Your task to perform on an android device: Add panasonic triple a to the cart on ebay, then select checkout. Image 0: 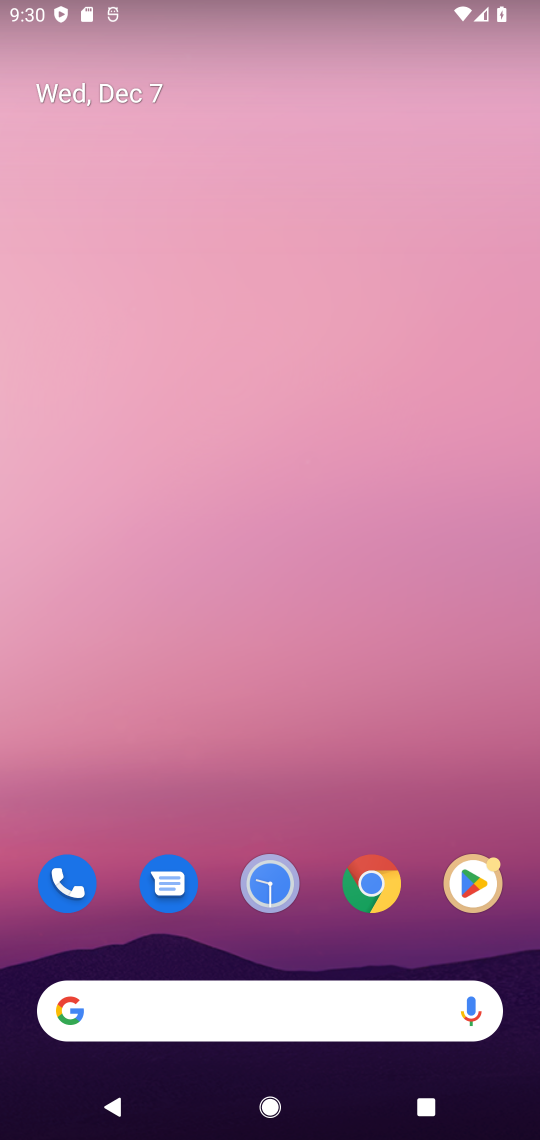
Step 0: drag from (194, 998) to (370, 309)
Your task to perform on an android device: Add panasonic triple a to the cart on ebay, then select checkout. Image 1: 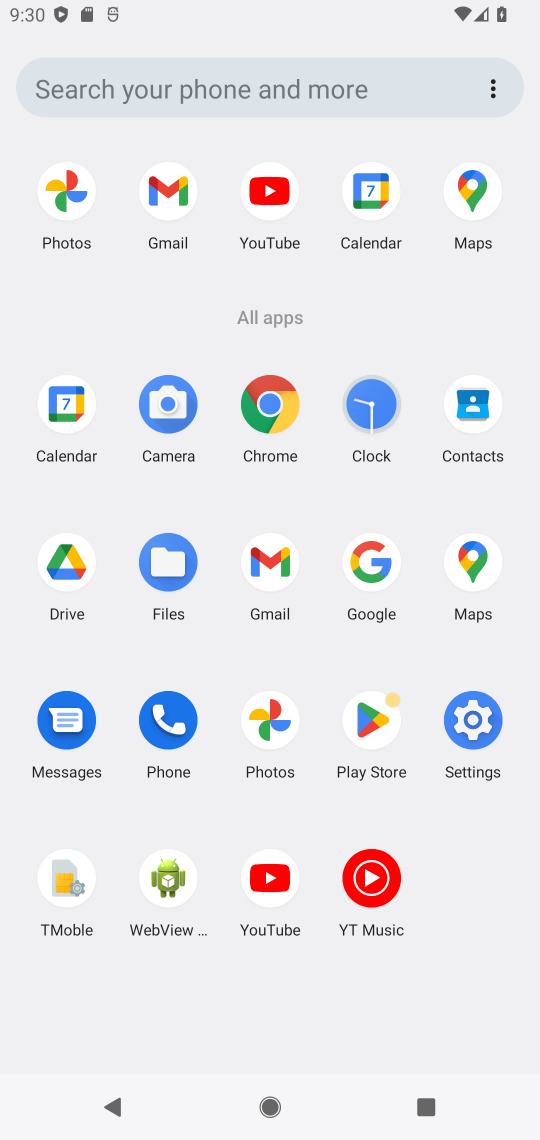
Step 1: click (367, 565)
Your task to perform on an android device: Add panasonic triple a to the cart on ebay, then select checkout. Image 2: 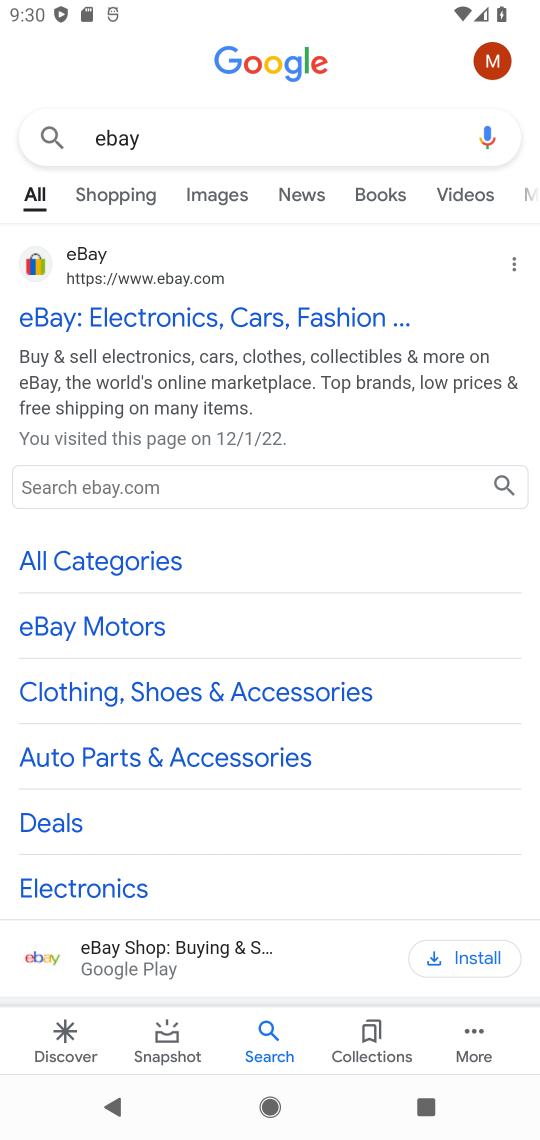
Step 2: click (170, 302)
Your task to perform on an android device: Add panasonic triple a to the cart on ebay, then select checkout. Image 3: 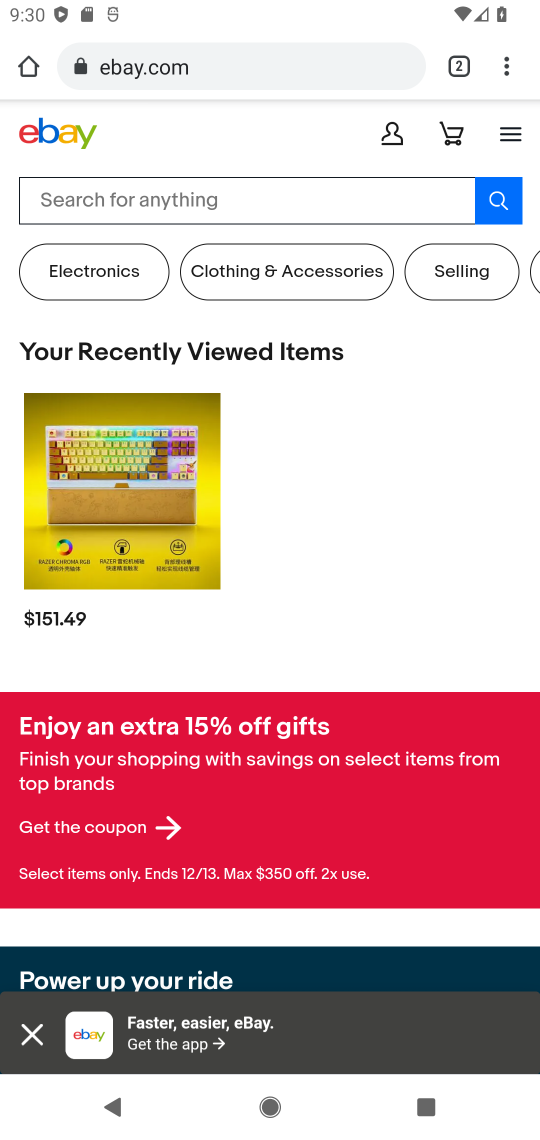
Step 3: click (158, 189)
Your task to perform on an android device: Add panasonic triple a to the cart on ebay, then select checkout. Image 4: 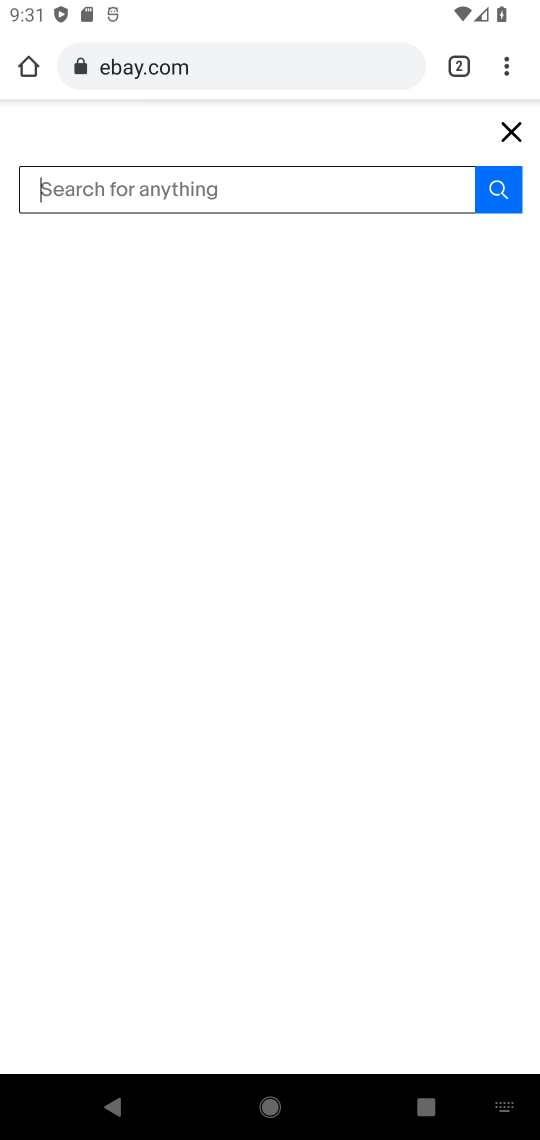
Step 4: type "panasonic triple a"
Your task to perform on an android device: Add panasonic triple a to the cart on ebay, then select checkout. Image 5: 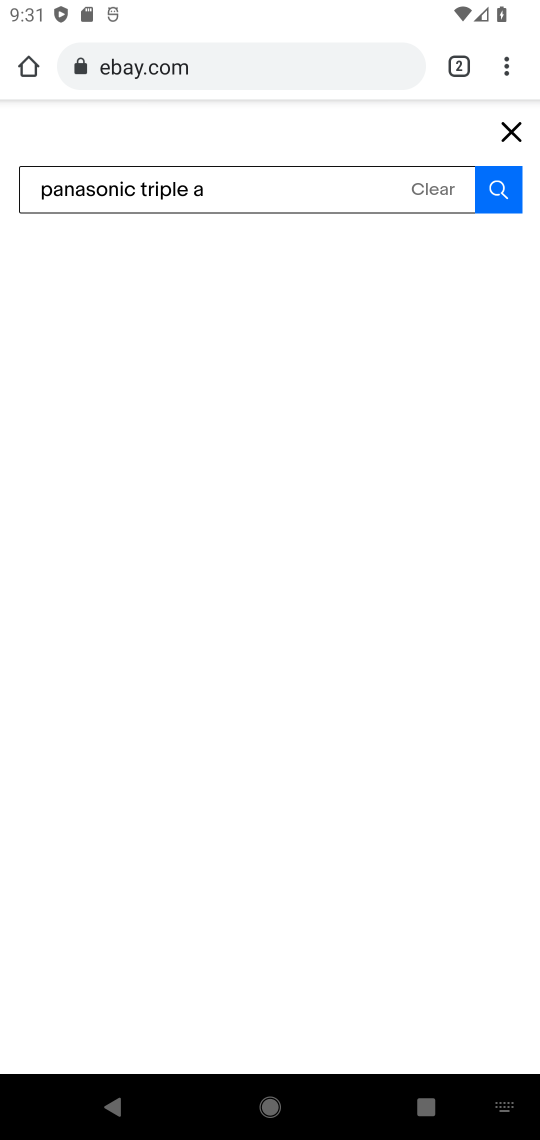
Step 5: click (496, 191)
Your task to perform on an android device: Add panasonic triple a to the cart on ebay, then select checkout. Image 6: 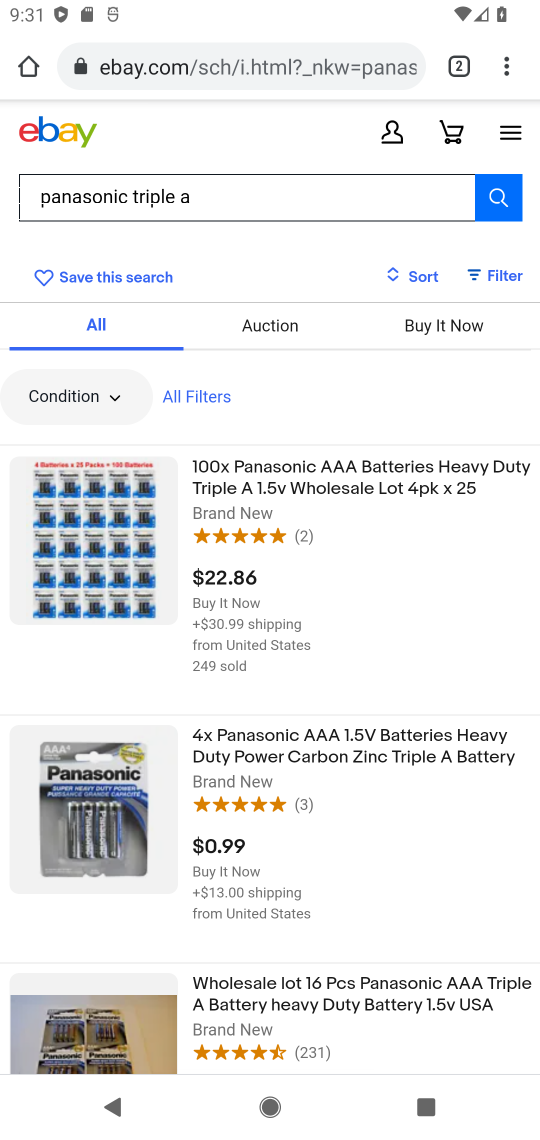
Step 6: click (249, 493)
Your task to perform on an android device: Add panasonic triple a to the cart on ebay, then select checkout. Image 7: 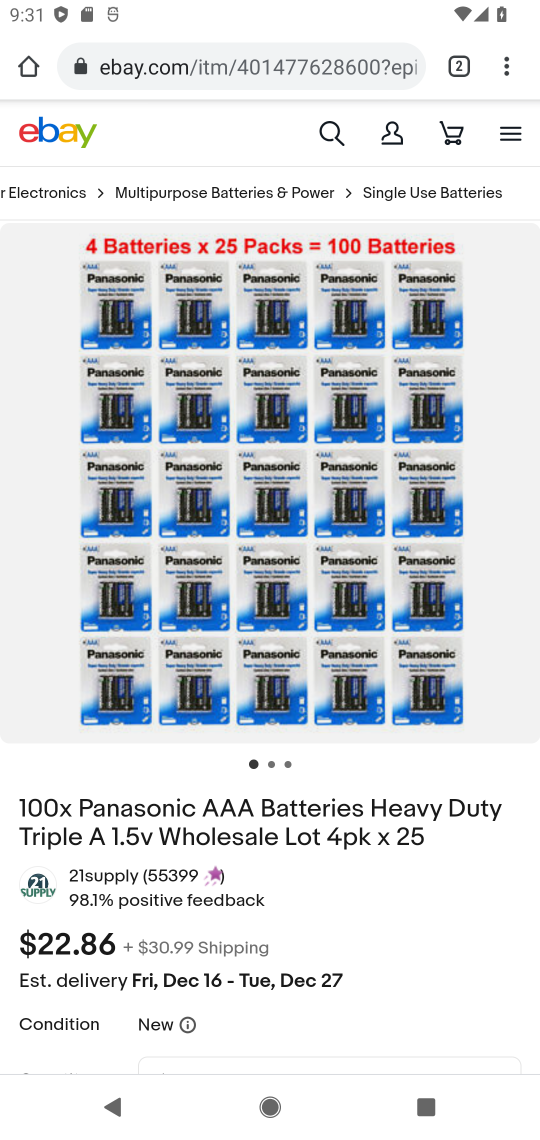
Step 7: drag from (344, 910) to (324, 471)
Your task to perform on an android device: Add panasonic triple a to the cart on ebay, then select checkout. Image 8: 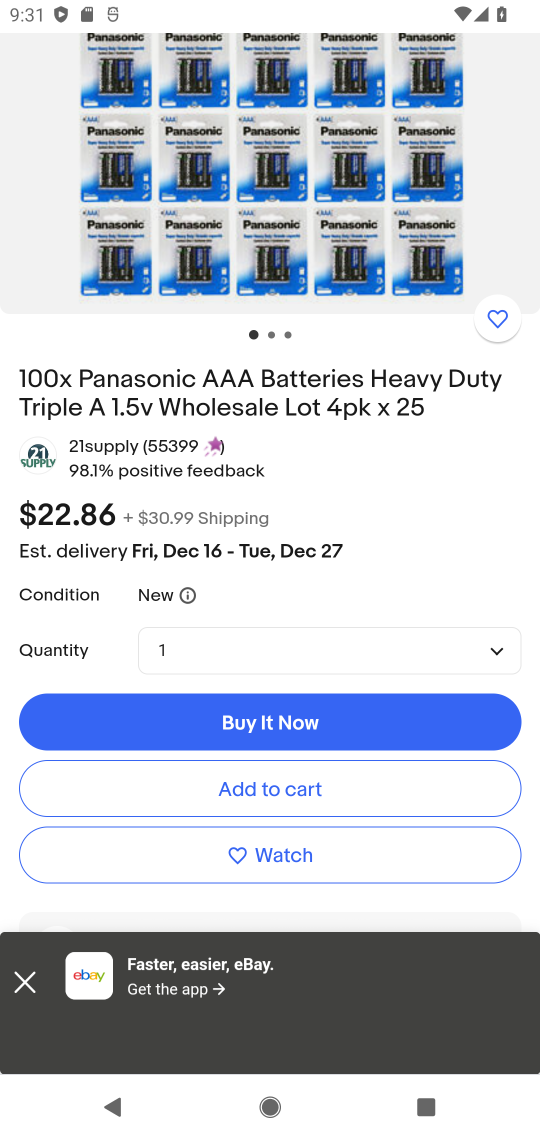
Step 8: click (301, 795)
Your task to perform on an android device: Add panasonic triple a to the cart on ebay, then select checkout. Image 9: 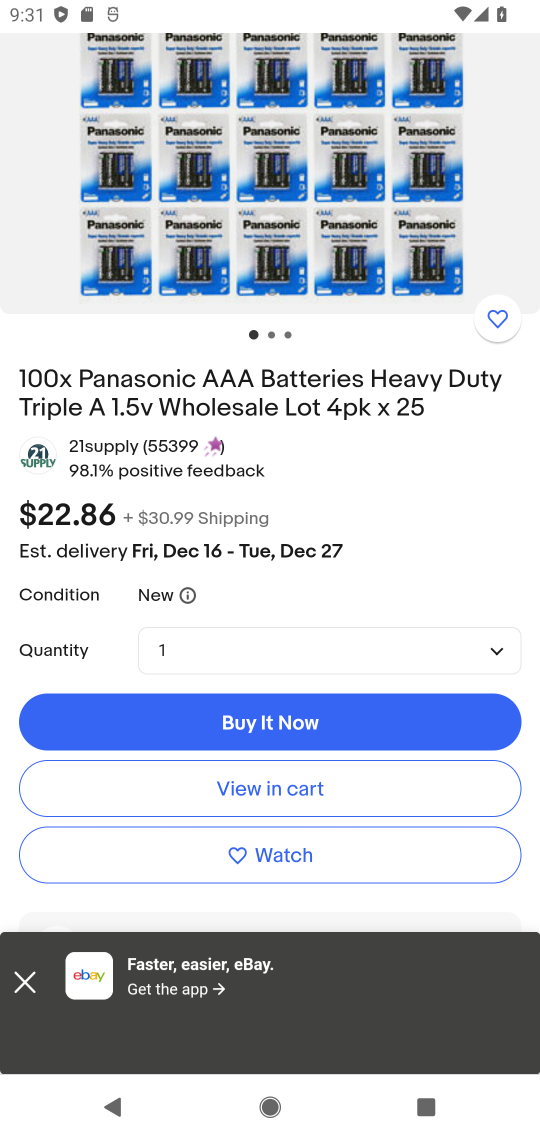
Step 9: drag from (266, 384) to (278, 729)
Your task to perform on an android device: Add panasonic triple a to the cart on ebay, then select checkout. Image 10: 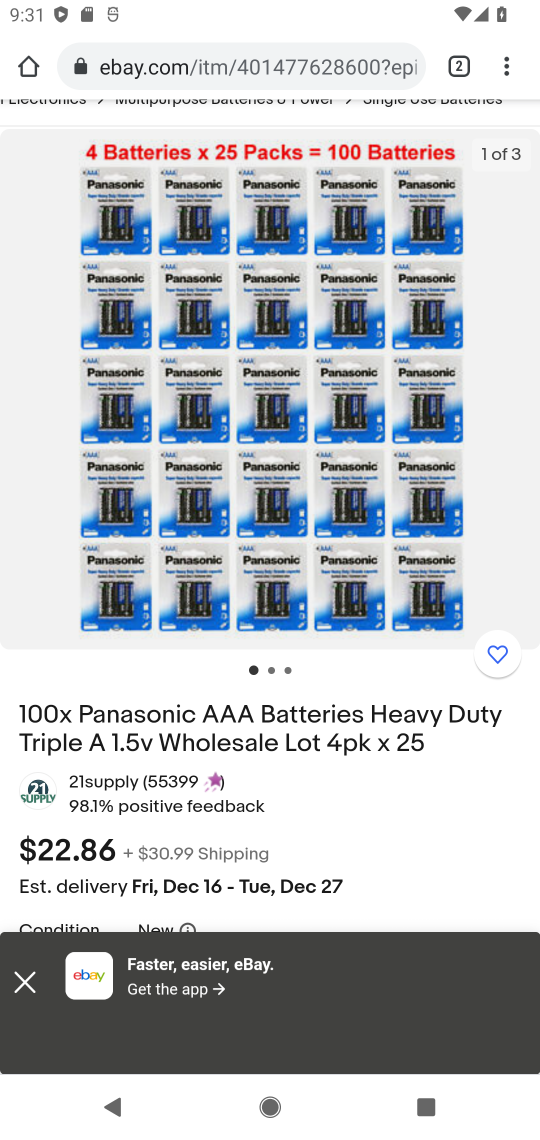
Step 10: drag from (240, 206) to (276, 609)
Your task to perform on an android device: Add panasonic triple a to the cart on ebay, then select checkout. Image 11: 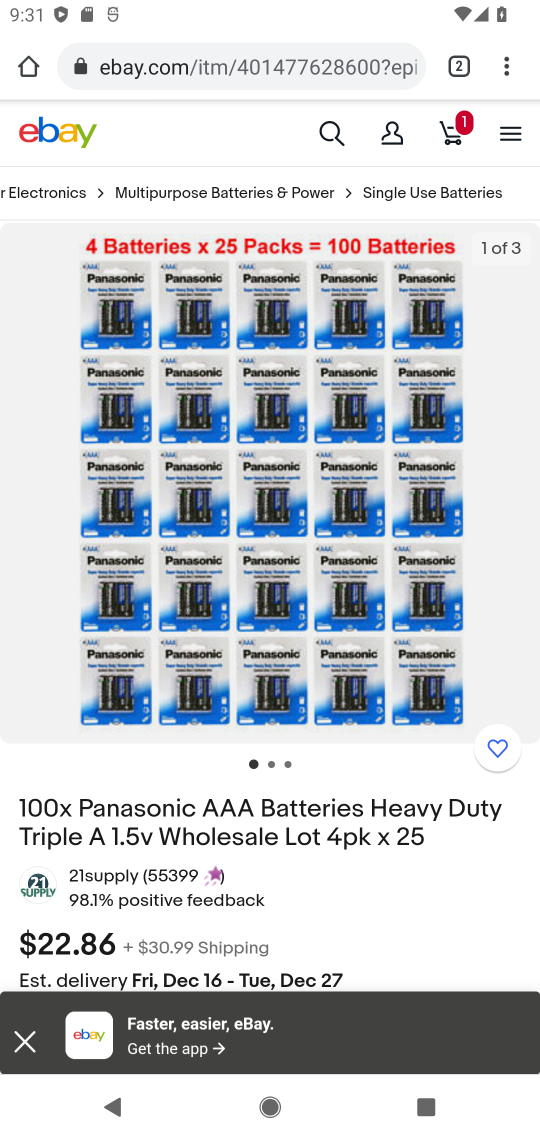
Step 11: click (465, 123)
Your task to perform on an android device: Add panasonic triple a to the cart on ebay, then select checkout. Image 12: 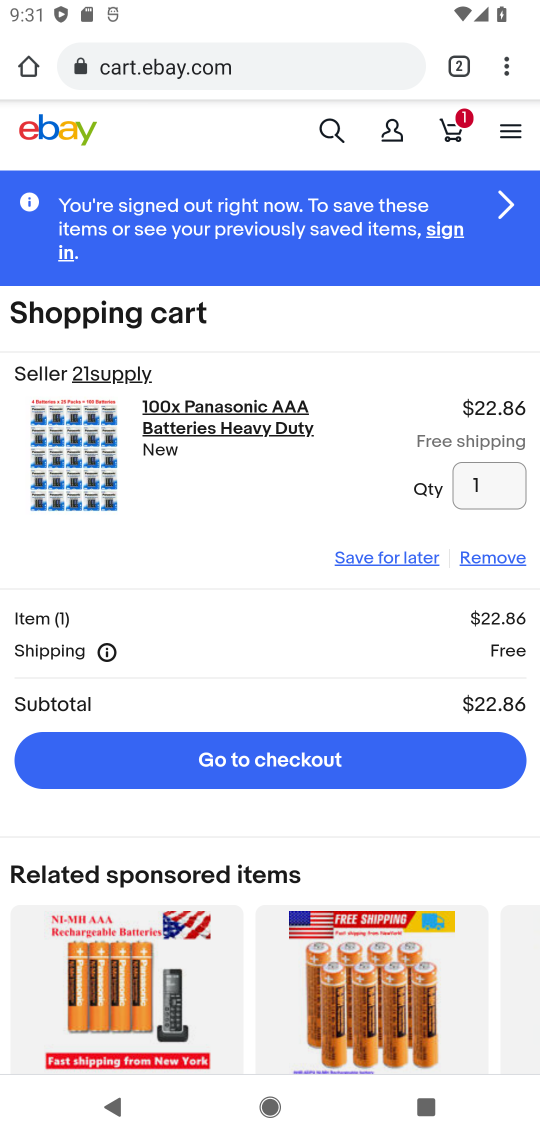
Step 12: click (262, 766)
Your task to perform on an android device: Add panasonic triple a to the cart on ebay, then select checkout. Image 13: 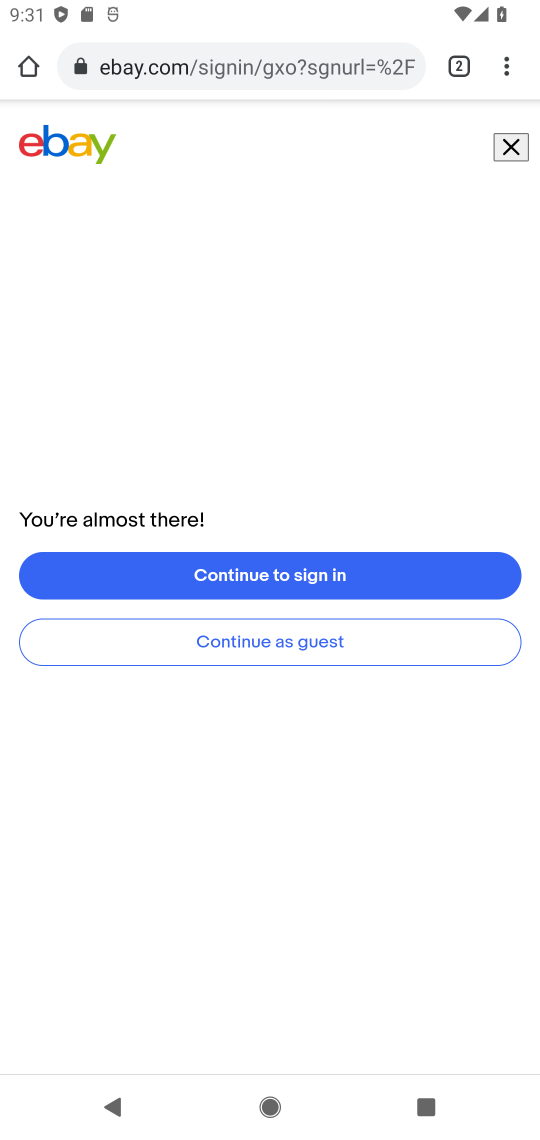
Step 13: task complete